Your task to perform on an android device: Go to Reddit.com Image 0: 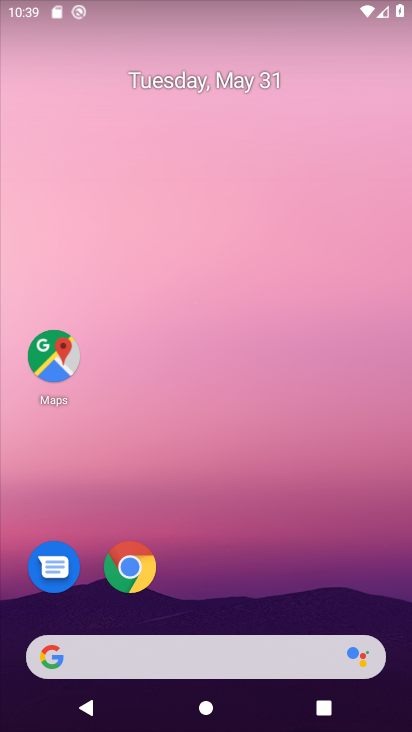
Step 0: click (160, 666)
Your task to perform on an android device: Go to Reddit.com Image 1: 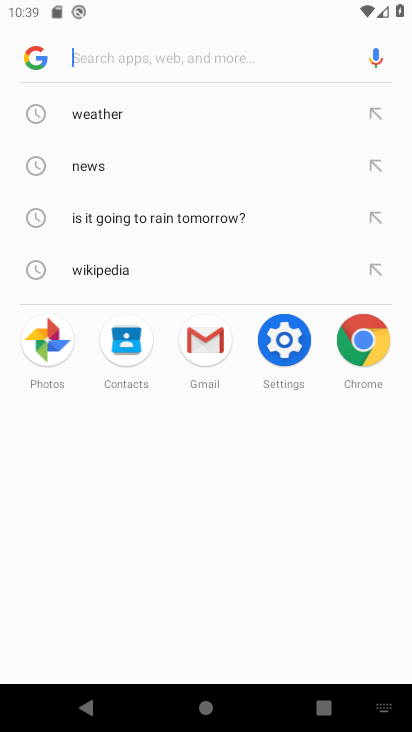
Step 1: type "reddit"
Your task to perform on an android device: Go to Reddit.com Image 2: 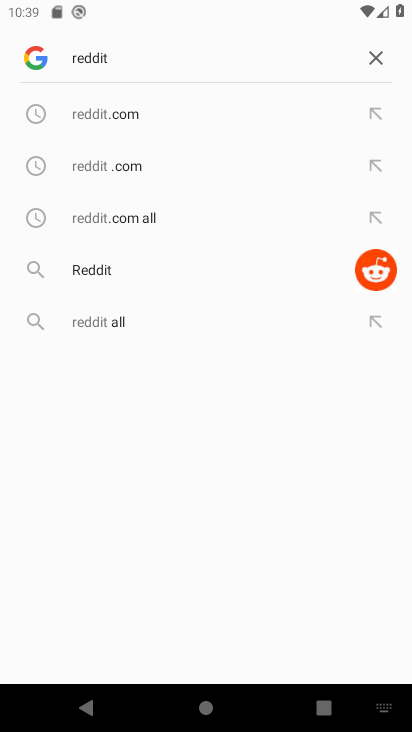
Step 2: click (233, 98)
Your task to perform on an android device: Go to Reddit.com Image 3: 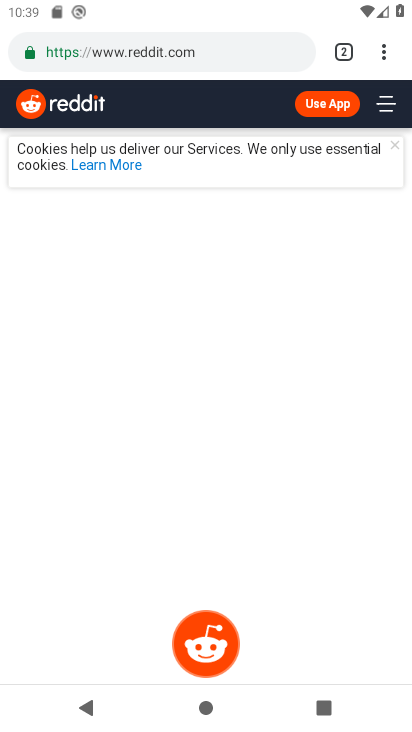
Step 3: task complete